Your task to perform on an android device: delete a single message in the gmail app Image 0: 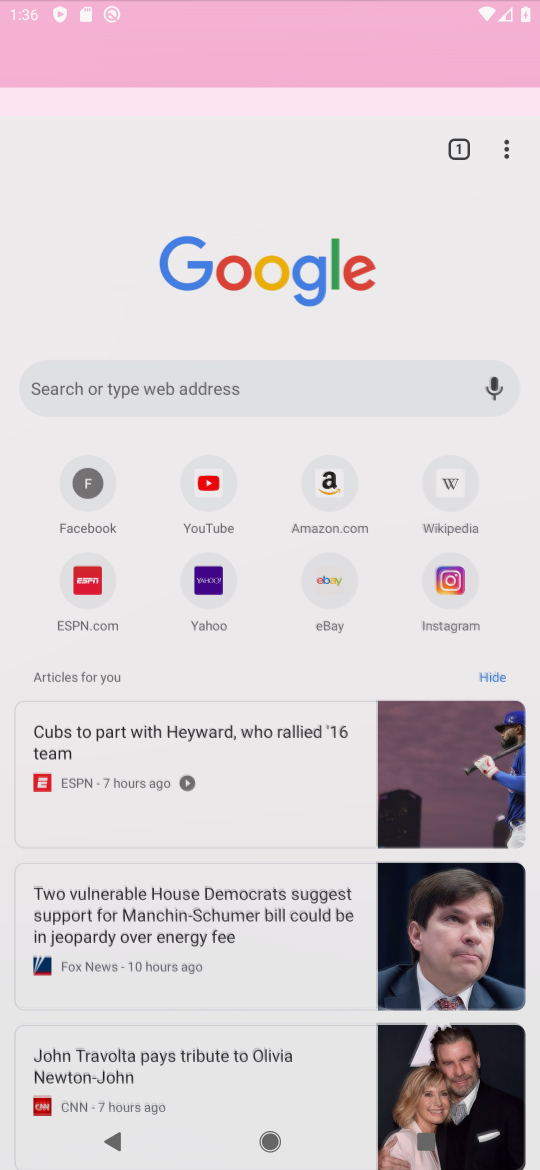
Step 0: press home button
Your task to perform on an android device: delete a single message in the gmail app Image 1: 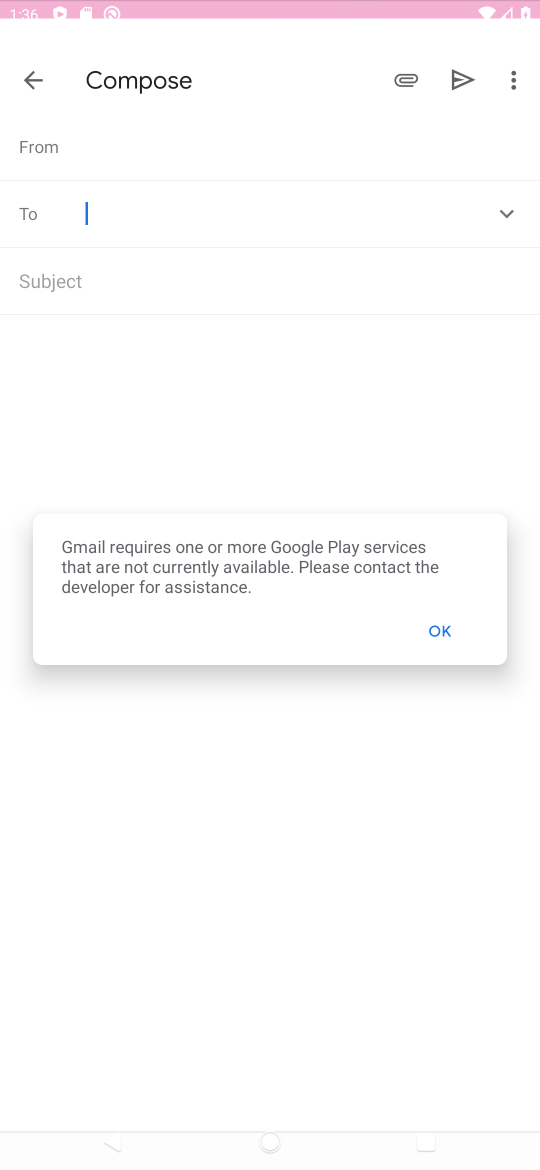
Step 1: click (334, 369)
Your task to perform on an android device: delete a single message in the gmail app Image 2: 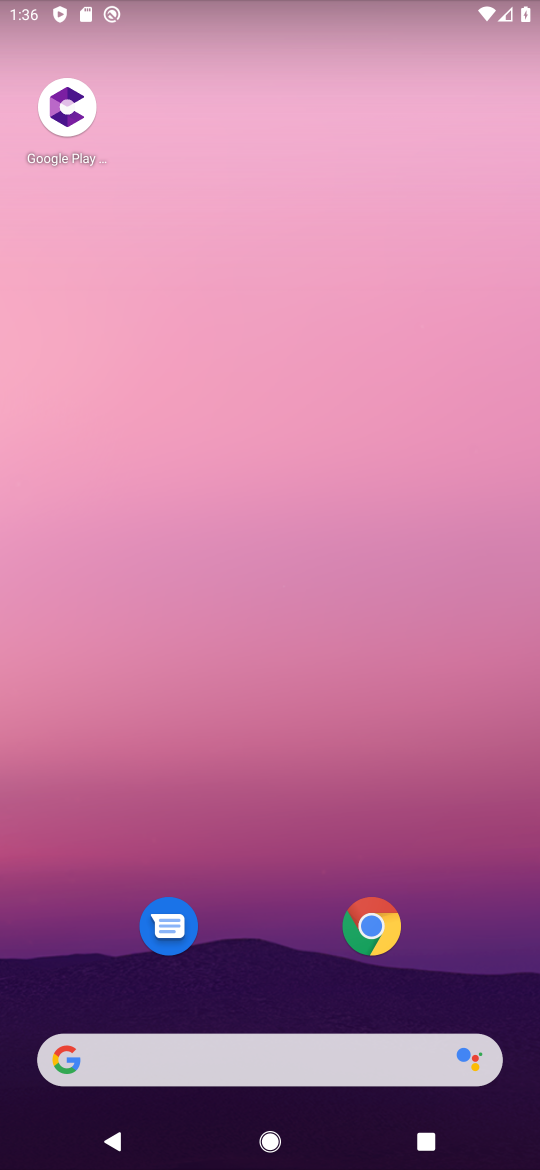
Step 2: press home button
Your task to perform on an android device: delete a single message in the gmail app Image 3: 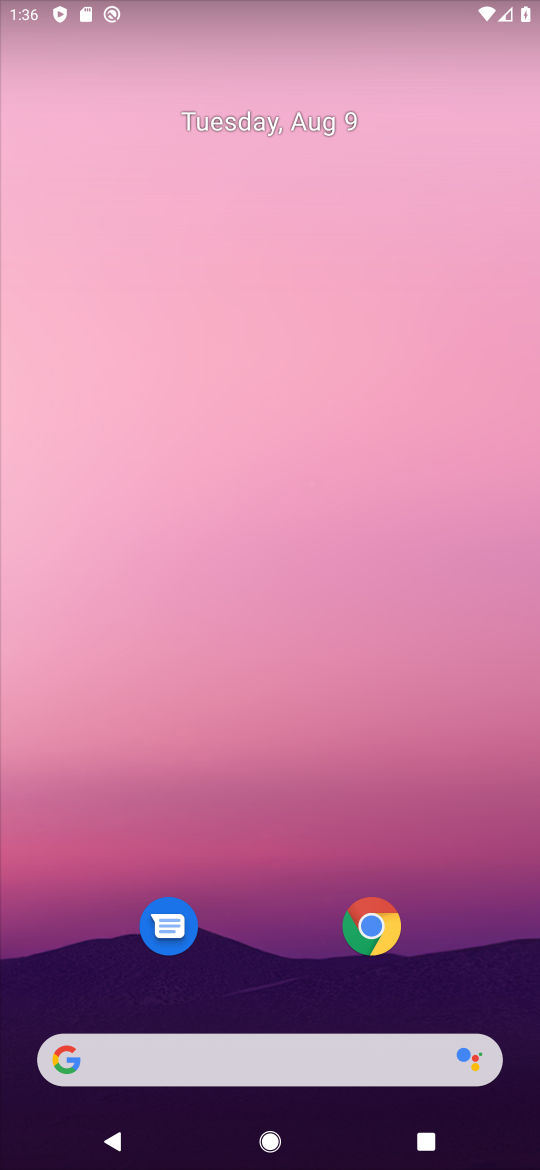
Step 3: drag from (266, 738) to (324, 0)
Your task to perform on an android device: delete a single message in the gmail app Image 4: 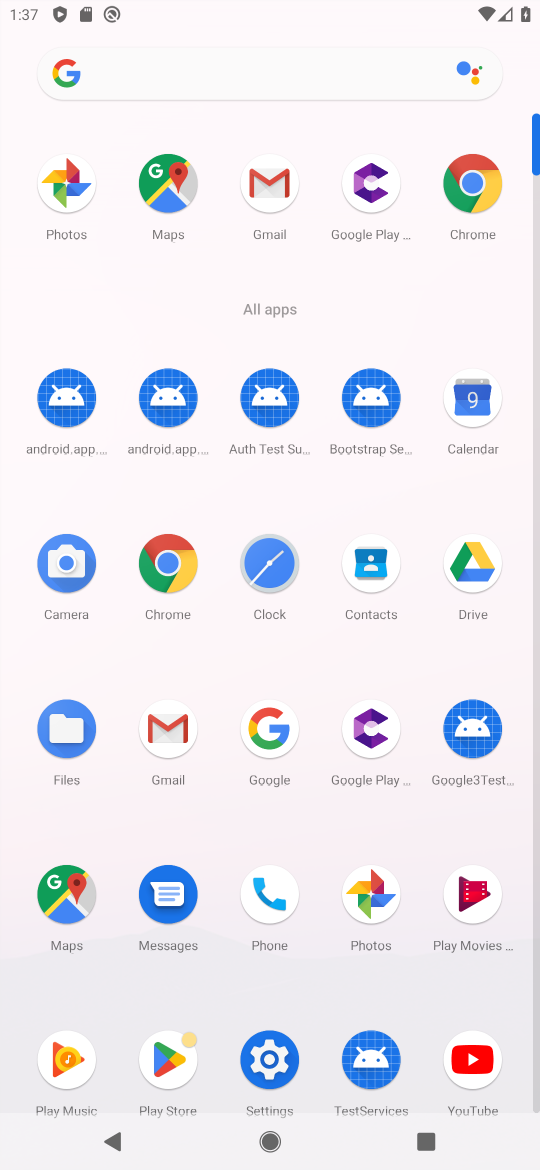
Step 4: click (264, 165)
Your task to perform on an android device: delete a single message in the gmail app Image 5: 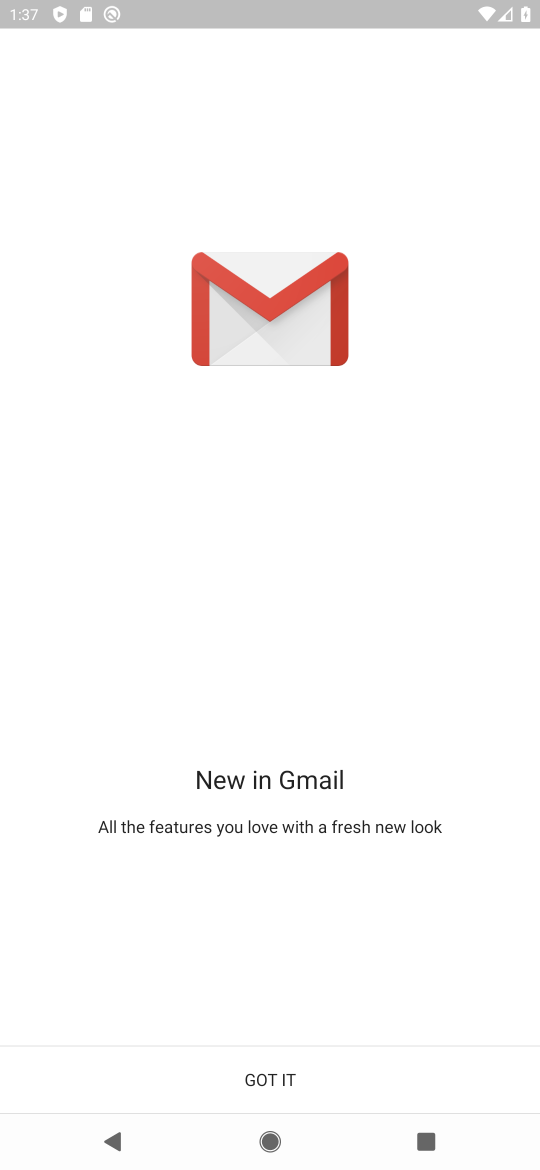
Step 5: click (296, 1100)
Your task to perform on an android device: delete a single message in the gmail app Image 6: 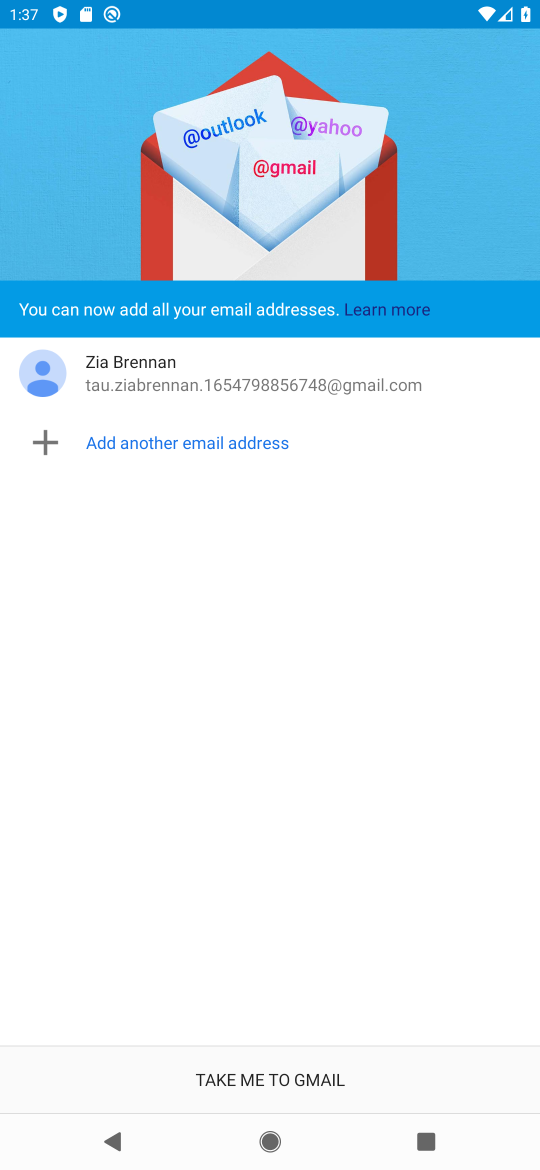
Step 6: click (302, 1088)
Your task to perform on an android device: delete a single message in the gmail app Image 7: 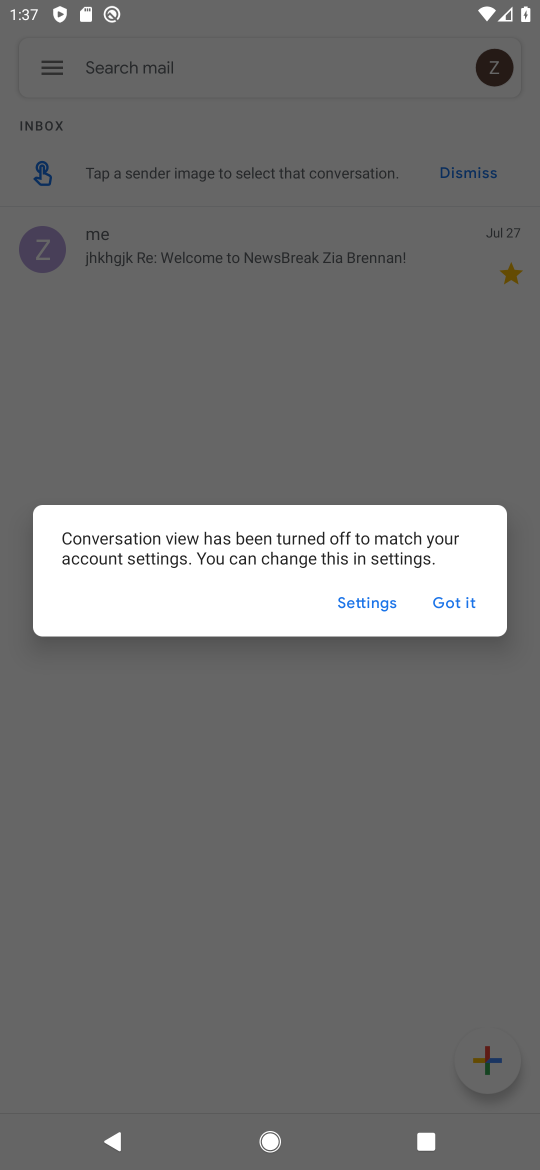
Step 7: click (441, 593)
Your task to perform on an android device: delete a single message in the gmail app Image 8: 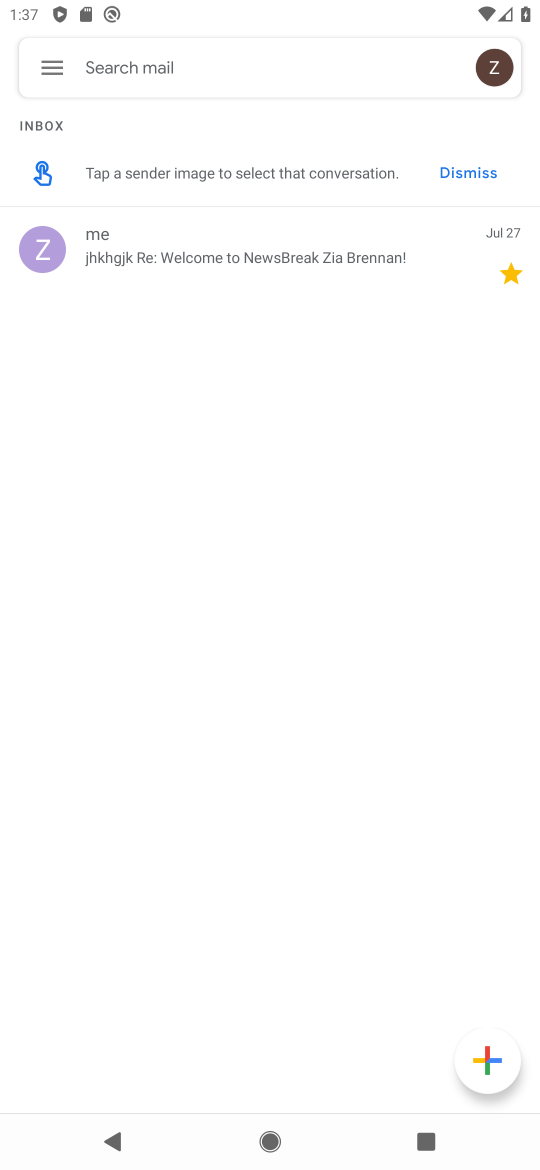
Step 8: click (44, 67)
Your task to perform on an android device: delete a single message in the gmail app Image 9: 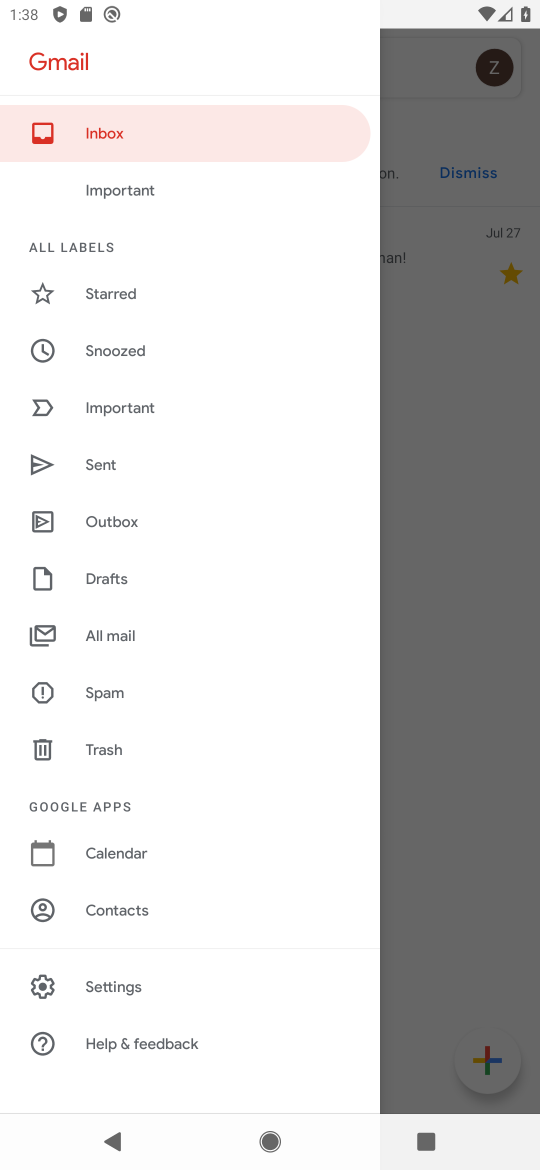
Step 9: click (420, 355)
Your task to perform on an android device: delete a single message in the gmail app Image 10: 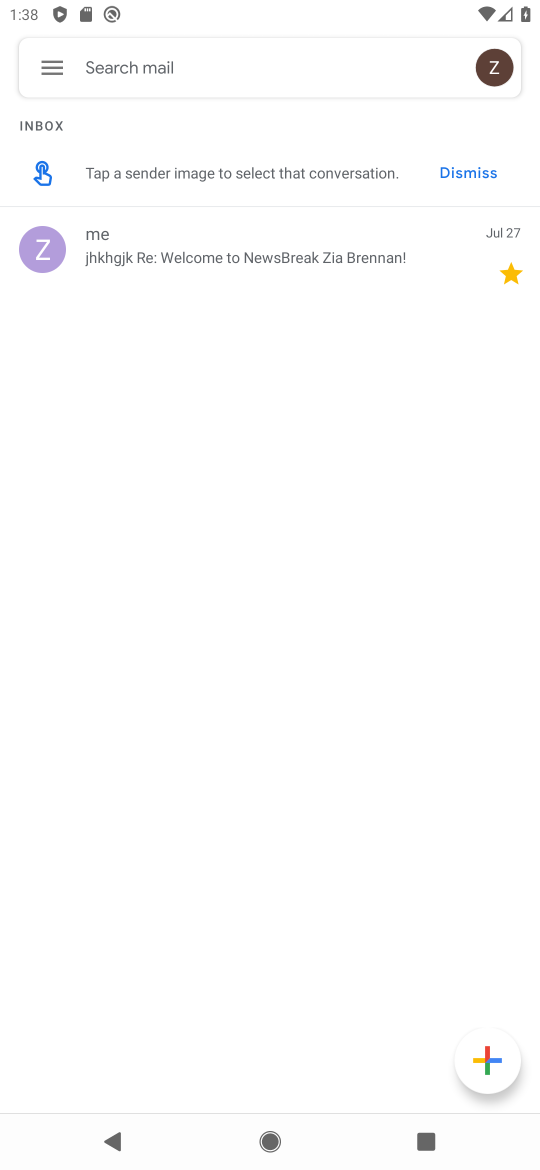
Step 10: click (324, 266)
Your task to perform on an android device: delete a single message in the gmail app Image 11: 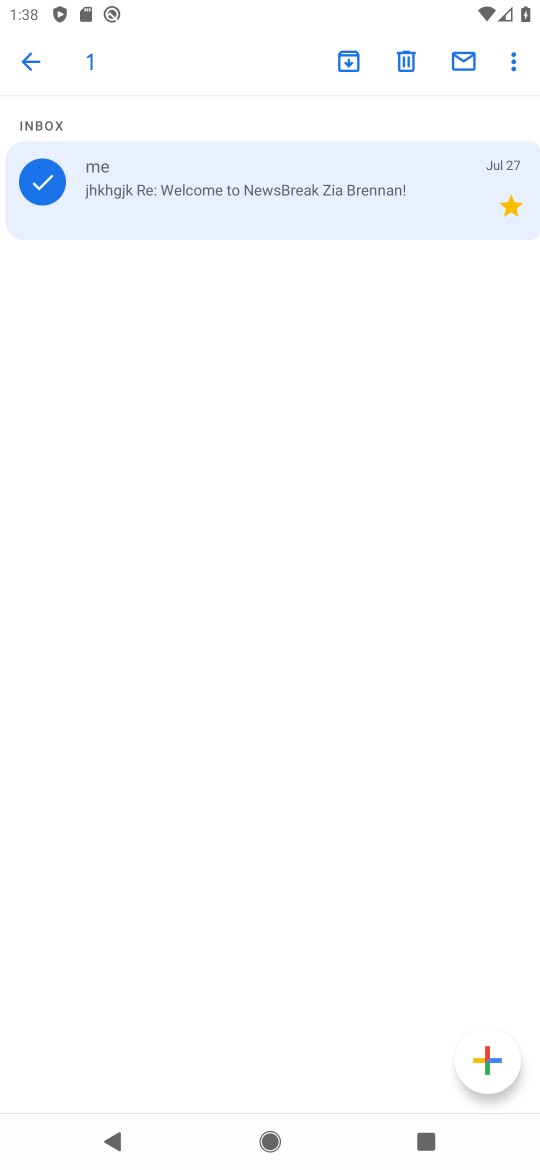
Step 11: click (410, 62)
Your task to perform on an android device: delete a single message in the gmail app Image 12: 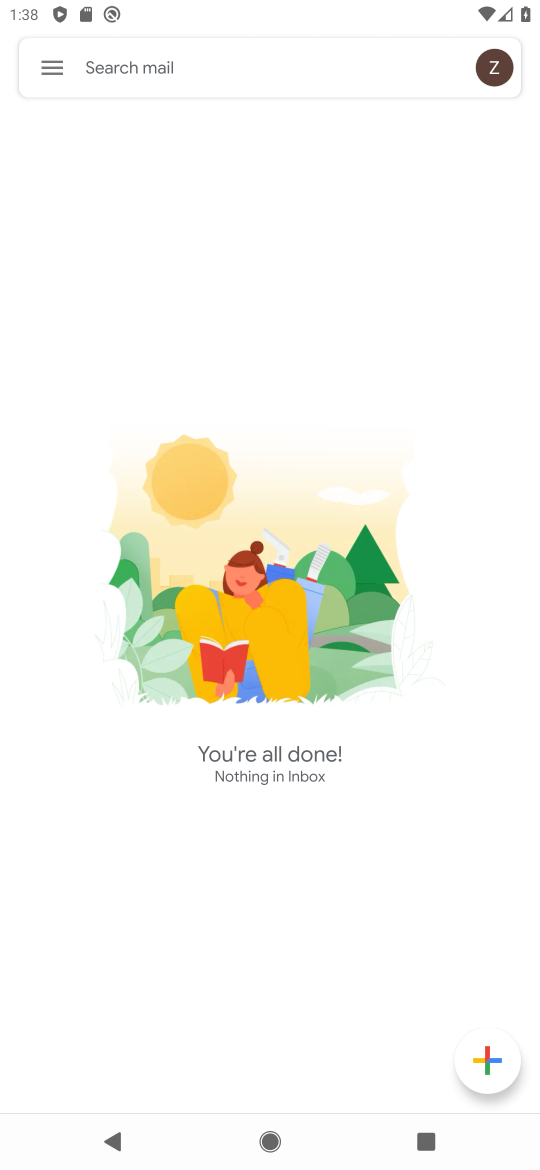
Step 12: task complete